Your task to perform on an android device: Open the stopwatch Image 0: 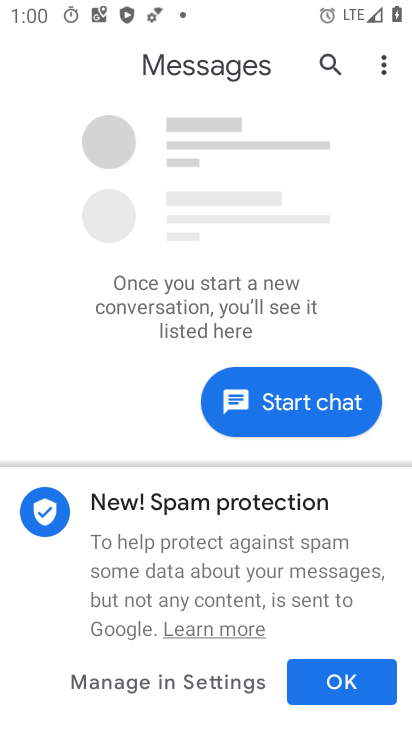
Step 0: press home button
Your task to perform on an android device: Open the stopwatch Image 1: 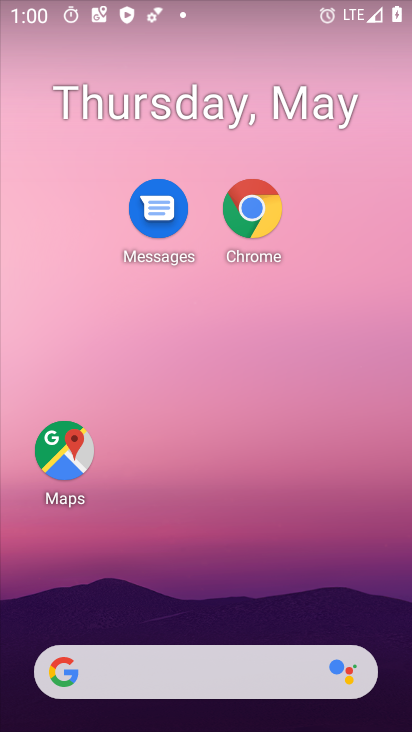
Step 1: drag from (209, 550) to (181, 280)
Your task to perform on an android device: Open the stopwatch Image 2: 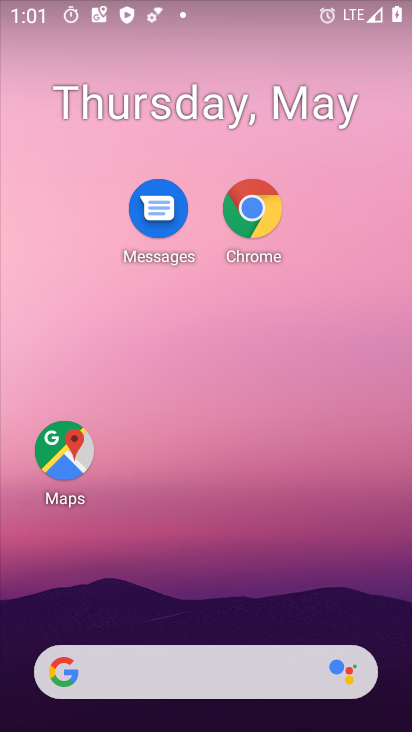
Step 2: drag from (244, 588) to (178, 71)
Your task to perform on an android device: Open the stopwatch Image 3: 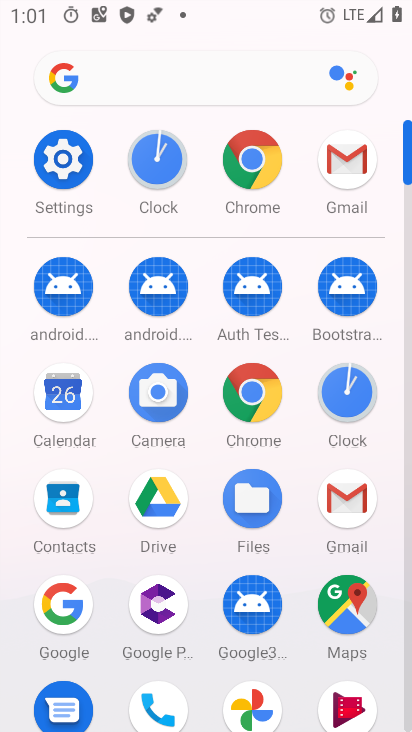
Step 3: click (336, 408)
Your task to perform on an android device: Open the stopwatch Image 4: 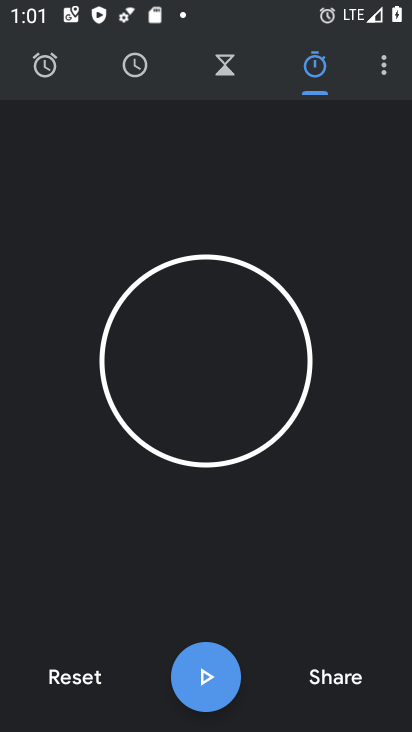
Step 4: task complete